Your task to perform on an android device: find photos in the google photos app Image 0: 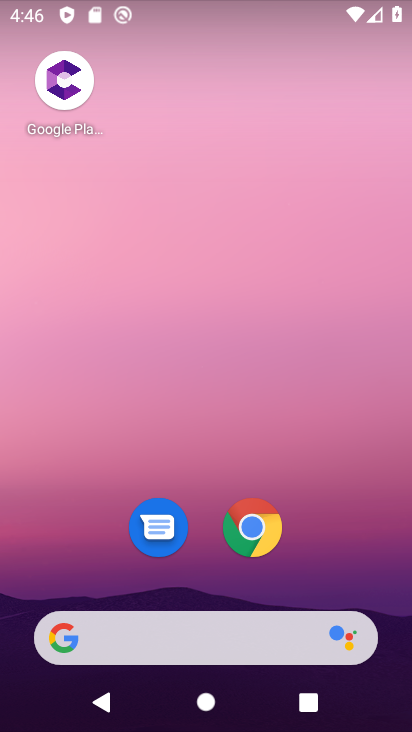
Step 0: drag from (210, 521) to (238, 211)
Your task to perform on an android device: find photos in the google photos app Image 1: 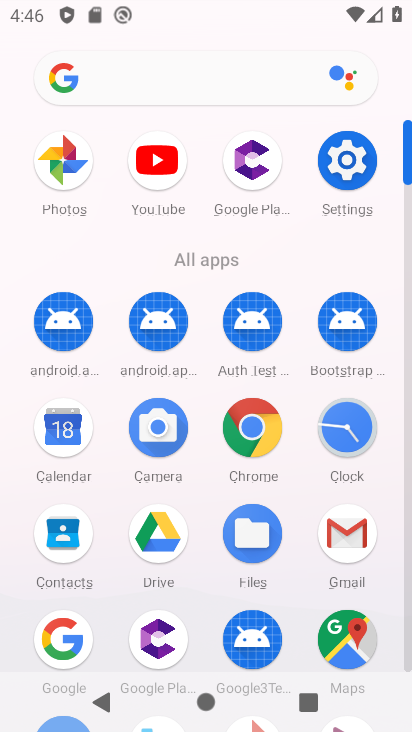
Step 1: drag from (184, 664) to (219, 255)
Your task to perform on an android device: find photos in the google photos app Image 2: 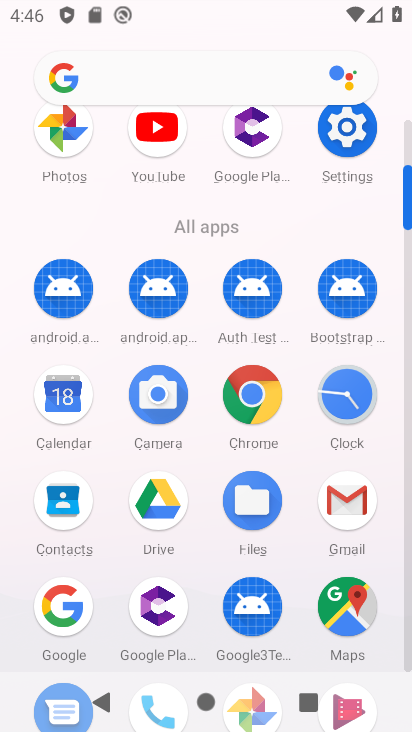
Step 2: click (58, 126)
Your task to perform on an android device: find photos in the google photos app Image 3: 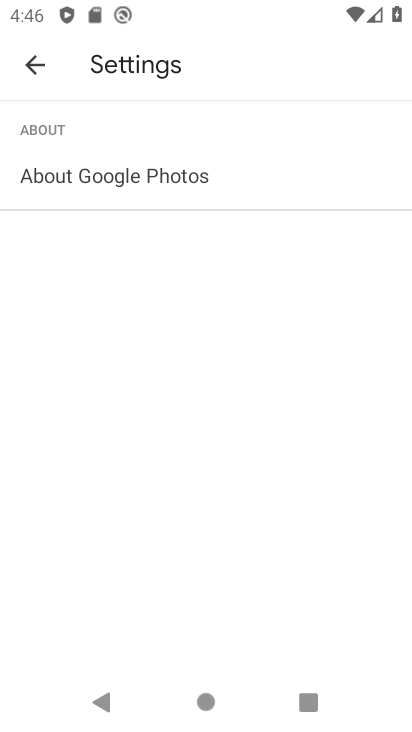
Step 3: click (41, 58)
Your task to perform on an android device: find photos in the google photos app Image 4: 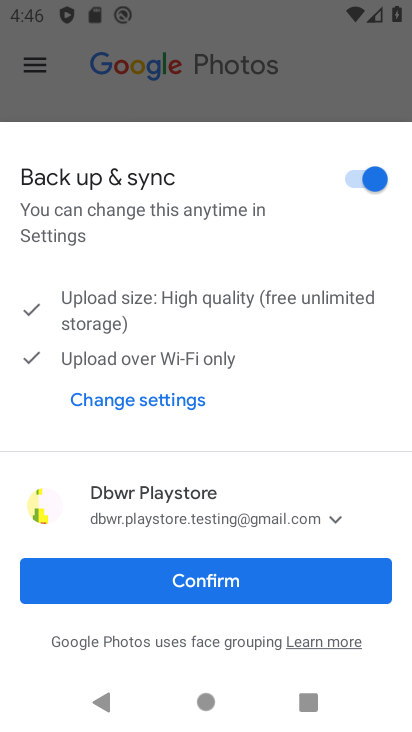
Step 4: click (211, 577)
Your task to perform on an android device: find photos in the google photos app Image 5: 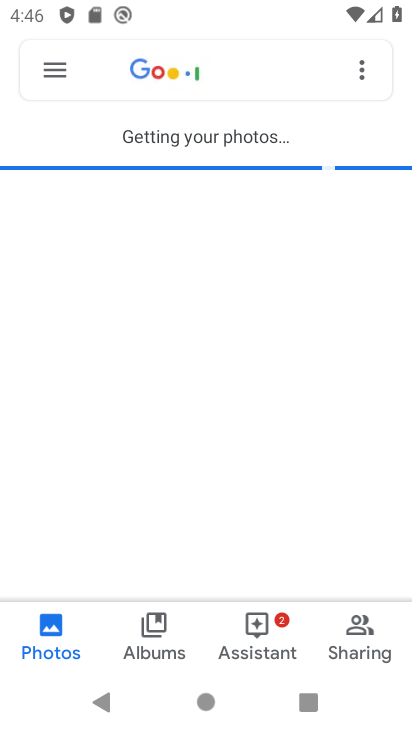
Step 5: click (181, 72)
Your task to perform on an android device: find photos in the google photos app Image 6: 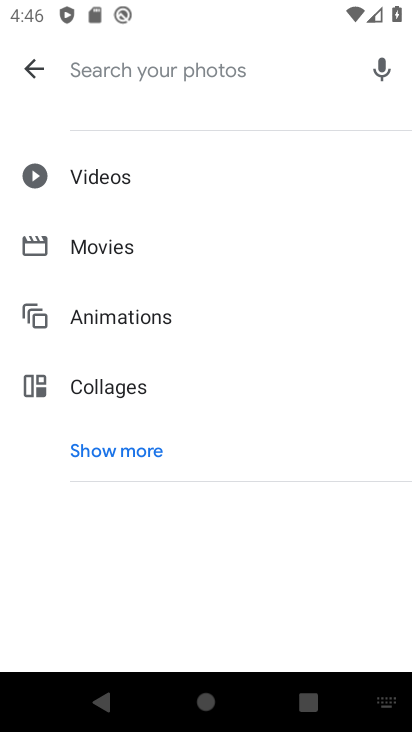
Step 6: type "album"
Your task to perform on an android device: find photos in the google photos app Image 7: 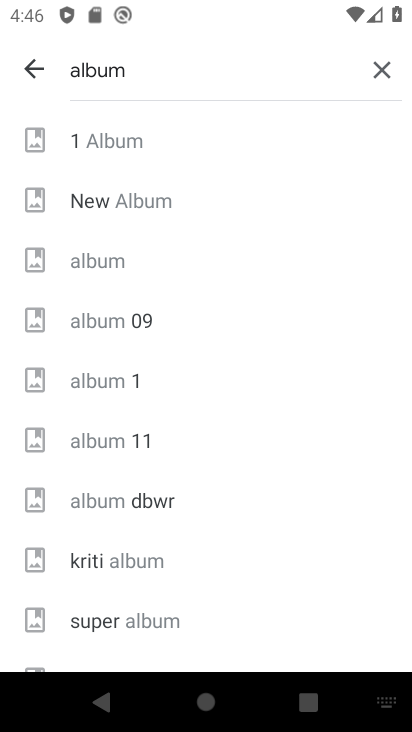
Step 7: click (107, 319)
Your task to perform on an android device: find photos in the google photos app Image 8: 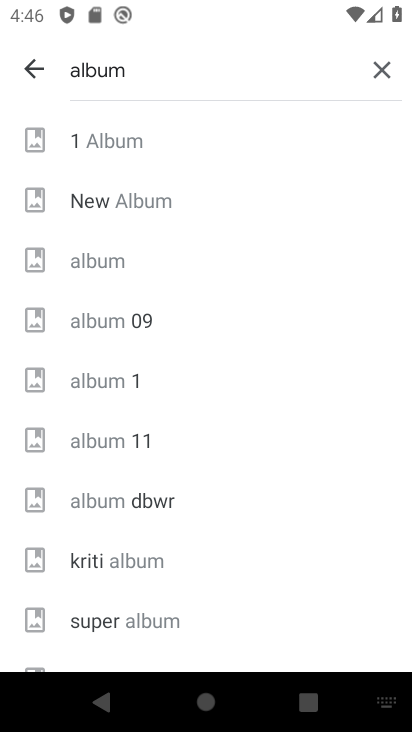
Step 8: click (104, 318)
Your task to perform on an android device: find photos in the google photos app Image 9: 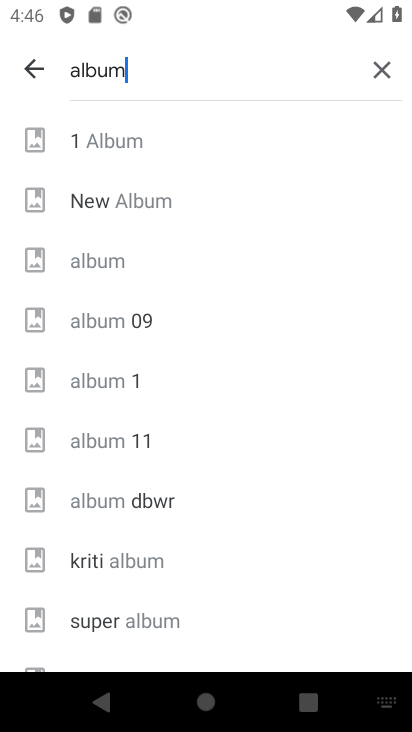
Step 9: task complete